Your task to perform on an android device: Open Maps and search for coffee Image 0: 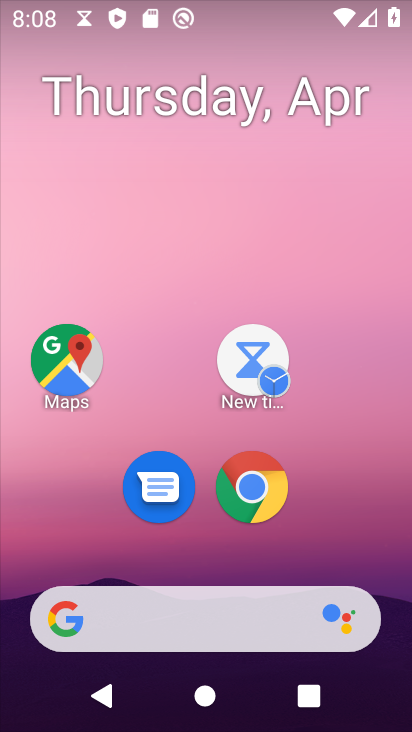
Step 0: click (82, 365)
Your task to perform on an android device: Open Maps and search for coffee Image 1: 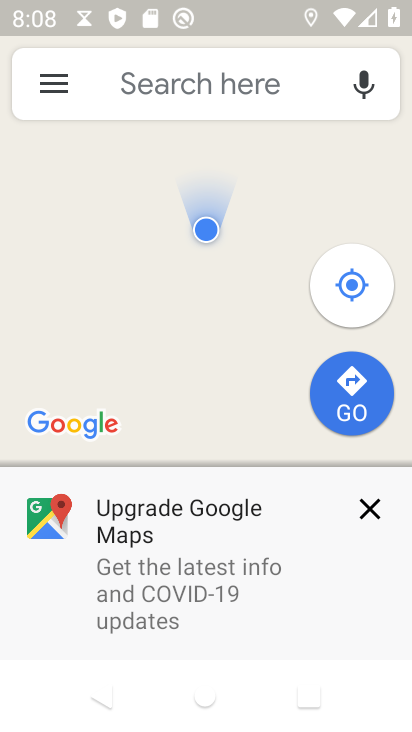
Step 1: click (191, 87)
Your task to perform on an android device: Open Maps and search for coffee Image 2: 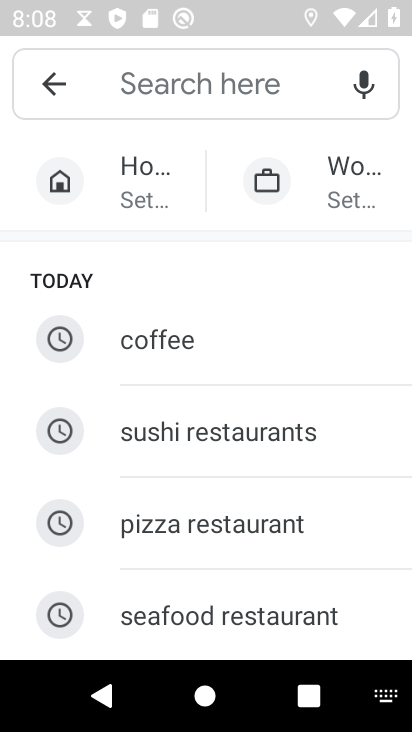
Step 2: click (142, 337)
Your task to perform on an android device: Open Maps and search for coffee Image 3: 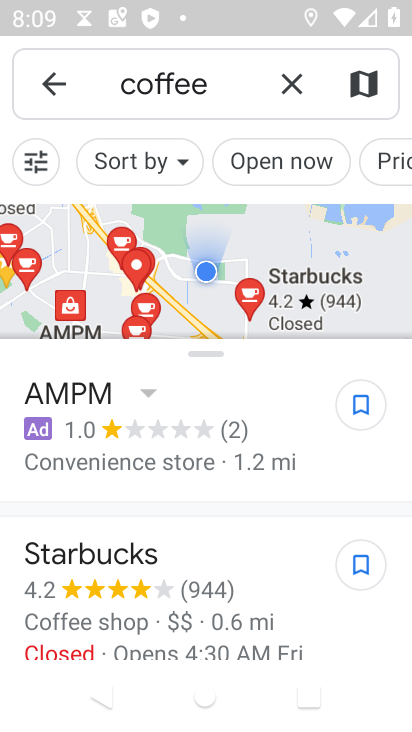
Step 3: task complete